Your task to perform on an android device: turn on improve location accuracy Image 0: 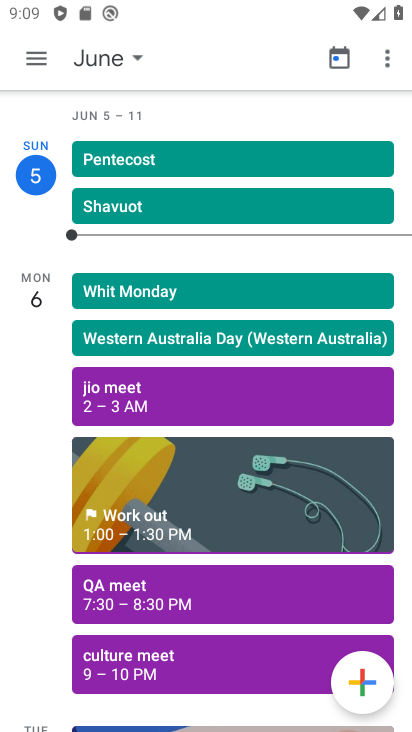
Step 0: task complete